Your task to perform on an android device: Go to battery settings Image 0: 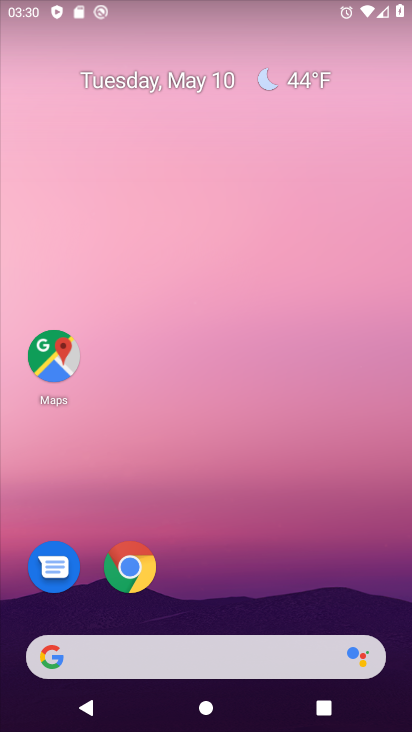
Step 0: drag from (218, 365) to (239, 22)
Your task to perform on an android device: Go to battery settings Image 1: 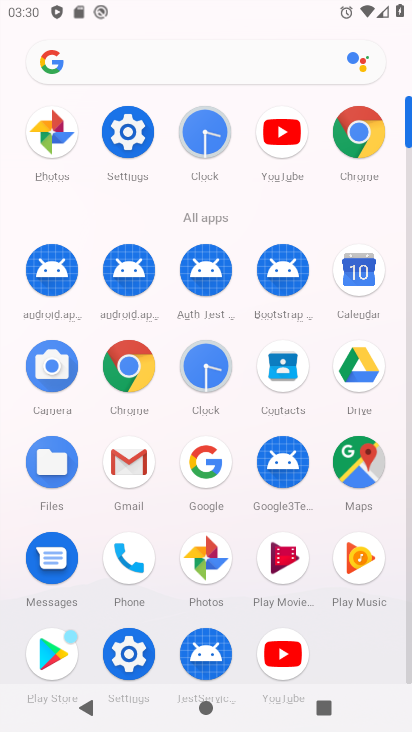
Step 1: click (128, 124)
Your task to perform on an android device: Go to battery settings Image 2: 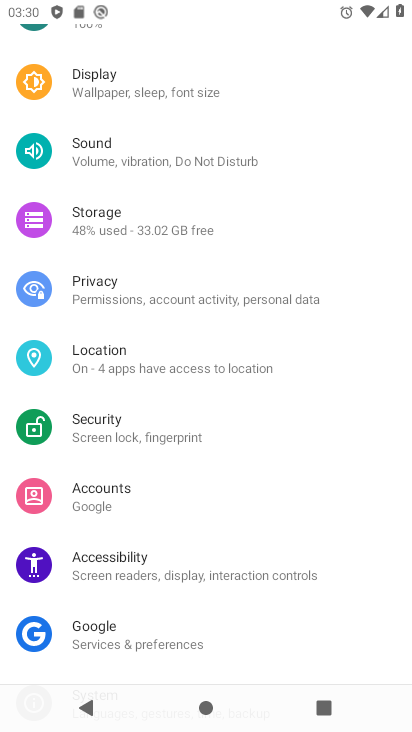
Step 2: drag from (201, 232) to (218, 453)
Your task to perform on an android device: Go to battery settings Image 3: 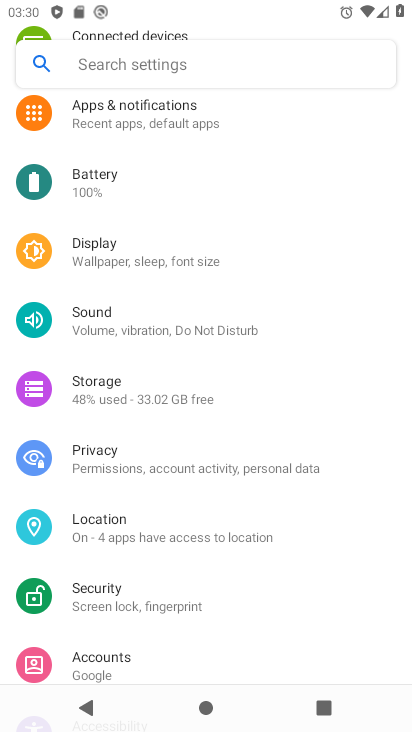
Step 3: click (118, 181)
Your task to perform on an android device: Go to battery settings Image 4: 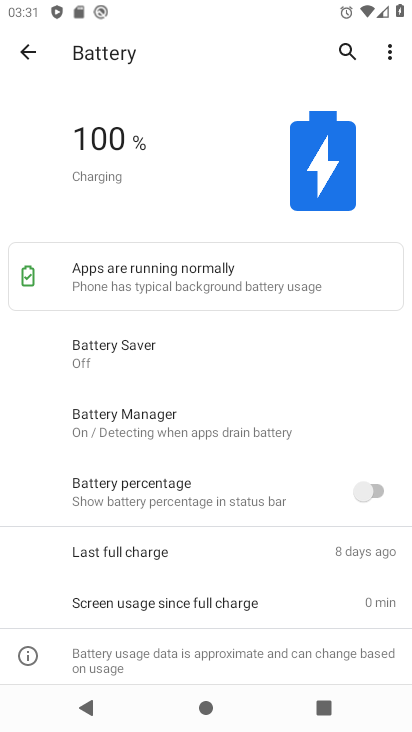
Step 4: task complete